Your task to perform on an android device: Go to accessibility settings Image 0: 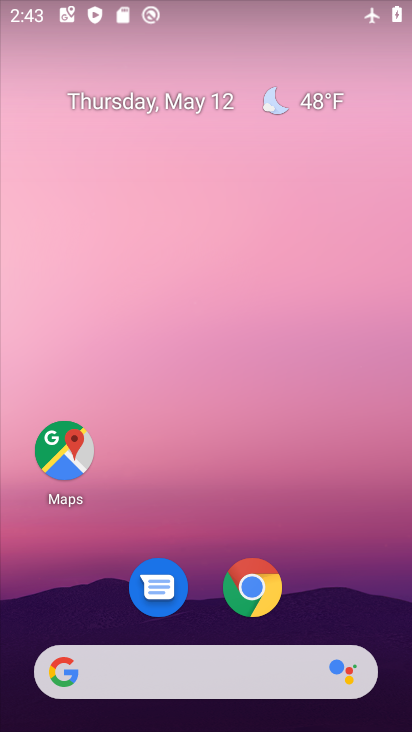
Step 0: drag from (295, 604) to (312, 0)
Your task to perform on an android device: Go to accessibility settings Image 1: 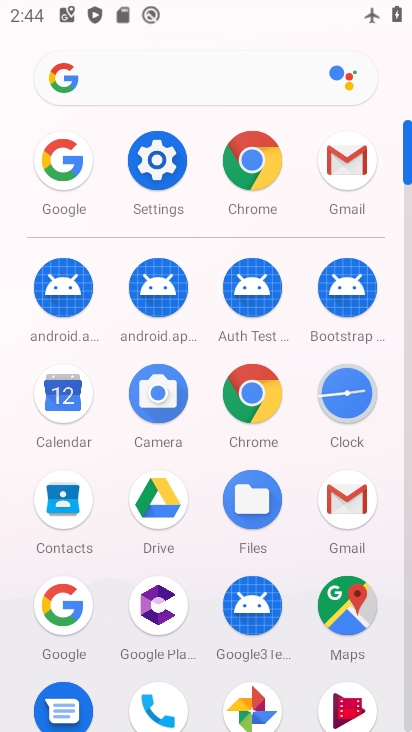
Step 1: click (161, 152)
Your task to perform on an android device: Go to accessibility settings Image 2: 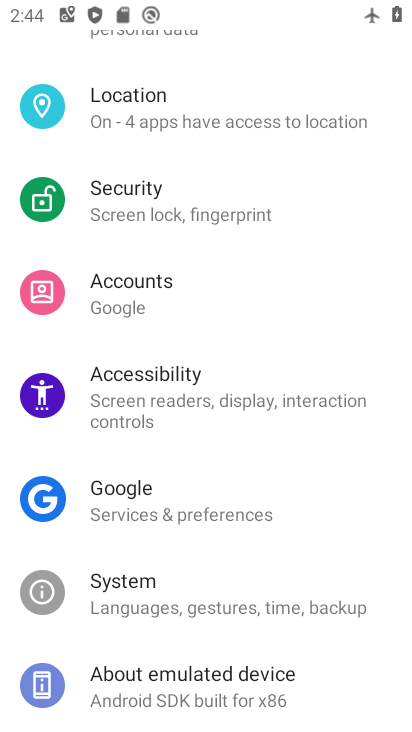
Step 2: drag from (243, 396) to (246, 612)
Your task to perform on an android device: Go to accessibility settings Image 3: 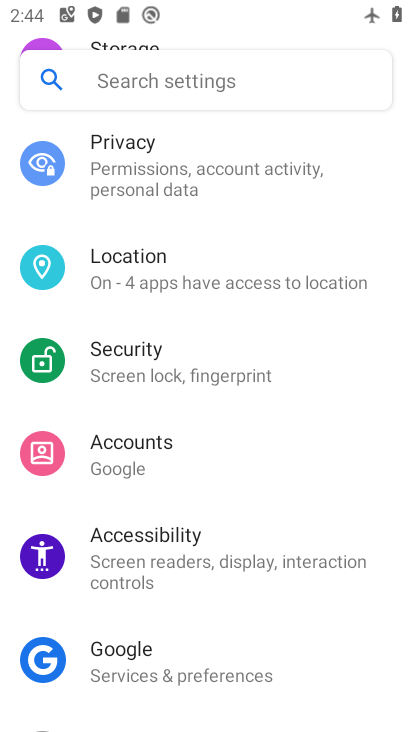
Step 3: click (250, 552)
Your task to perform on an android device: Go to accessibility settings Image 4: 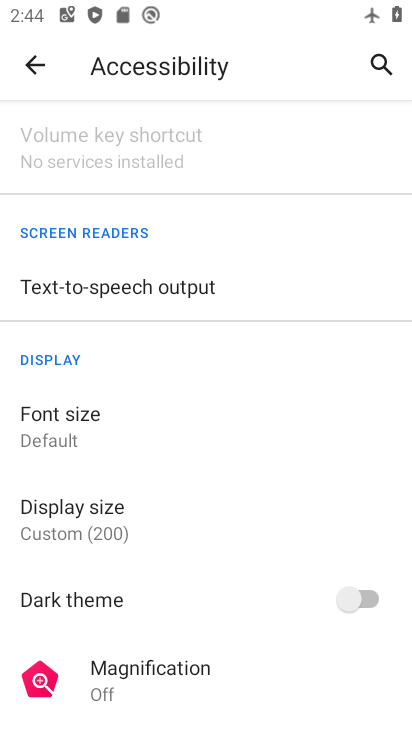
Step 4: task complete